Your task to perform on an android device: Open notification settings Image 0: 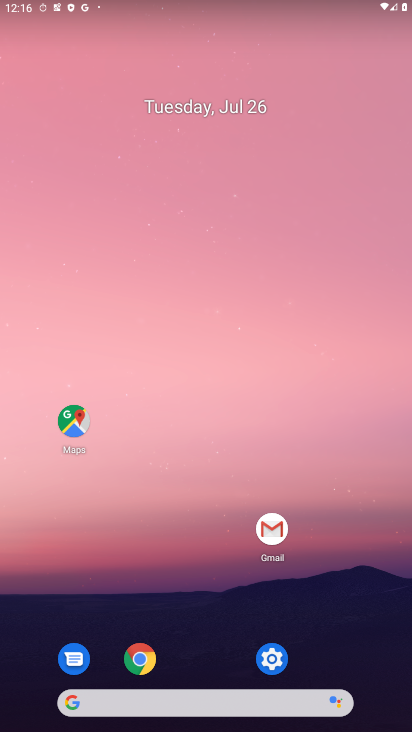
Step 0: press home button
Your task to perform on an android device: Open notification settings Image 1: 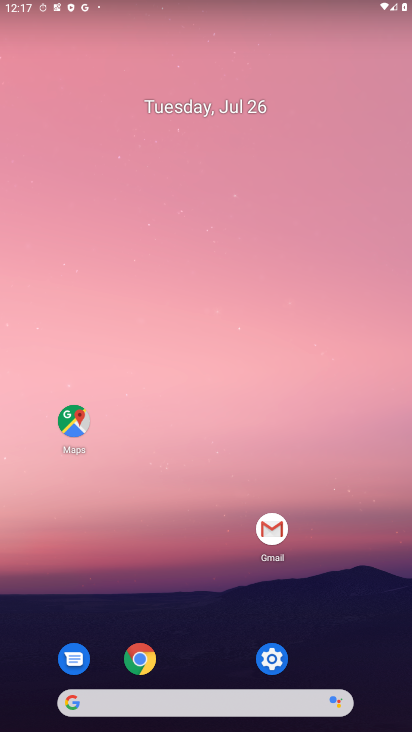
Step 1: click (274, 666)
Your task to perform on an android device: Open notification settings Image 2: 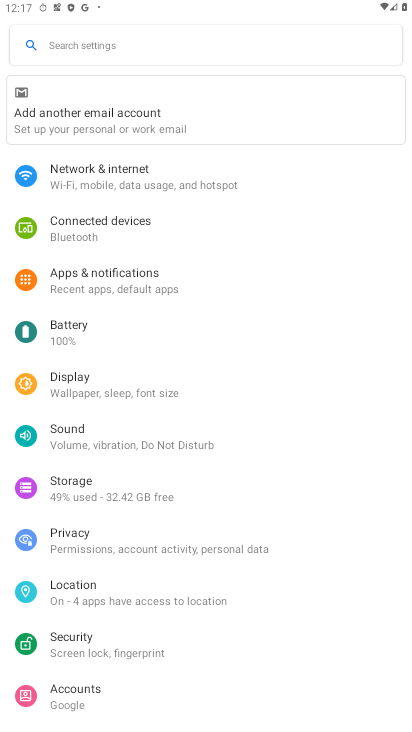
Step 2: click (103, 40)
Your task to perform on an android device: Open notification settings Image 3: 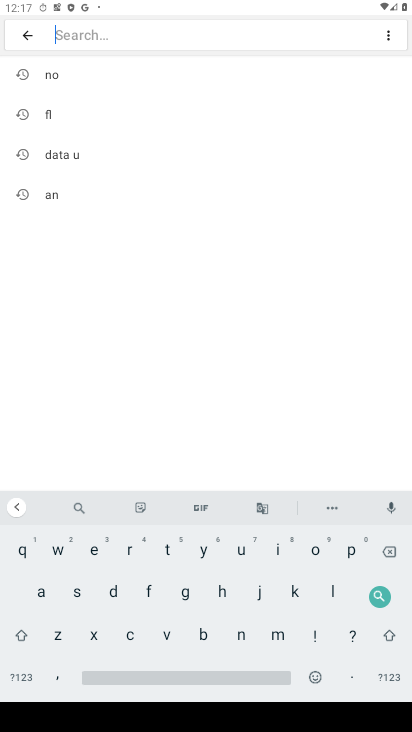
Step 3: click (245, 633)
Your task to perform on an android device: Open notification settings Image 4: 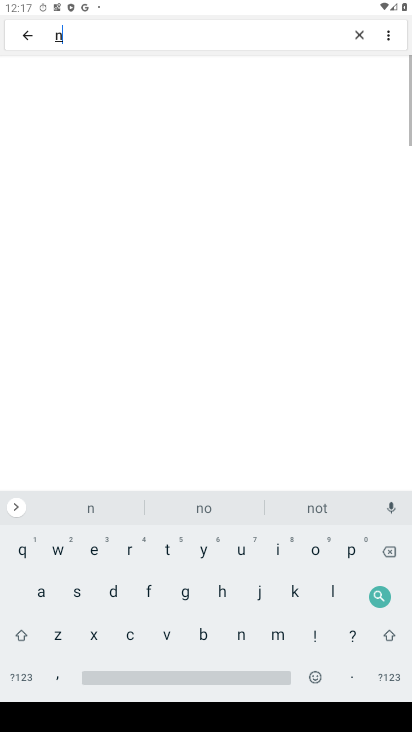
Step 4: click (315, 549)
Your task to perform on an android device: Open notification settings Image 5: 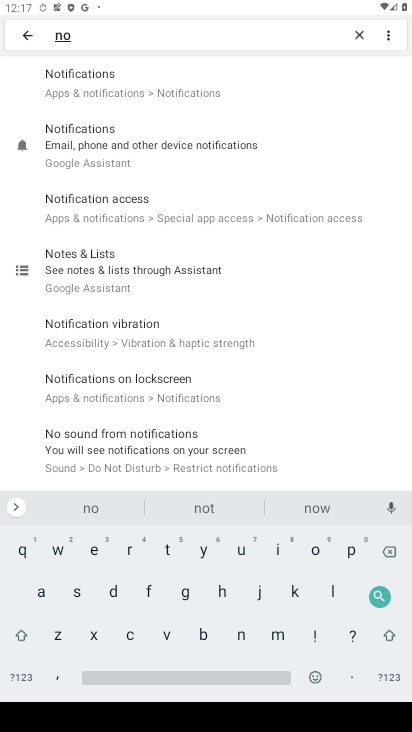
Step 5: click (138, 86)
Your task to perform on an android device: Open notification settings Image 6: 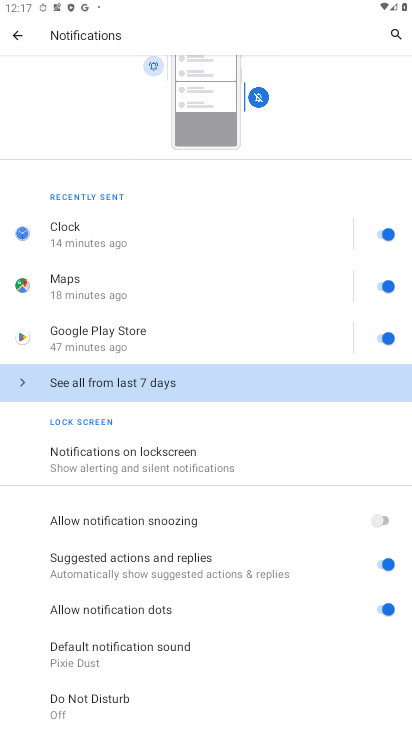
Step 6: click (74, 460)
Your task to perform on an android device: Open notification settings Image 7: 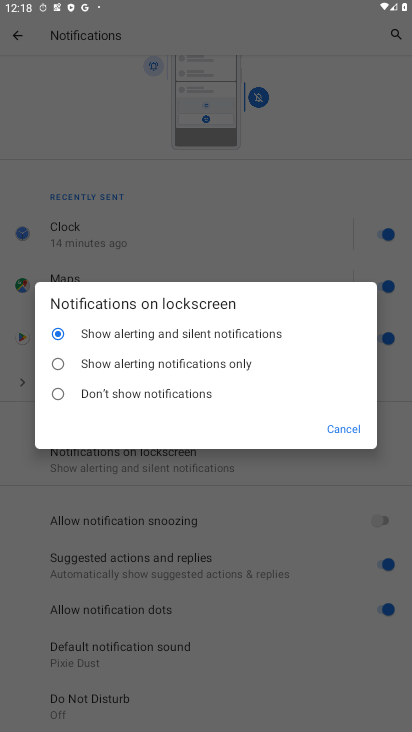
Step 7: task complete